Your task to perform on an android device: turn on sleep mode Image 0: 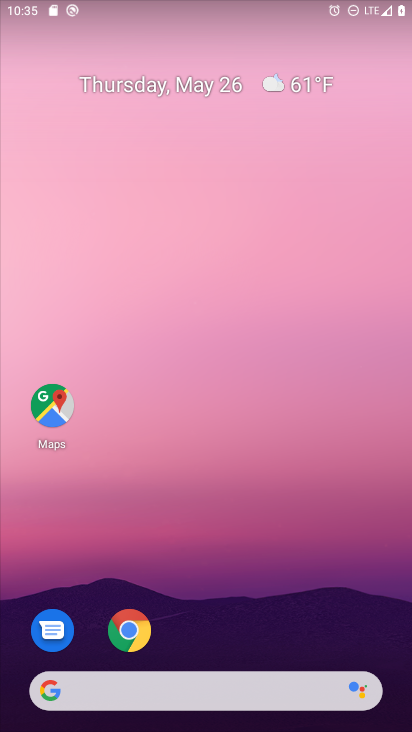
Step 0: drag from (182, 665) to (136, 6)
Your task to perform on an android device: turn on sleep mode Image 1: 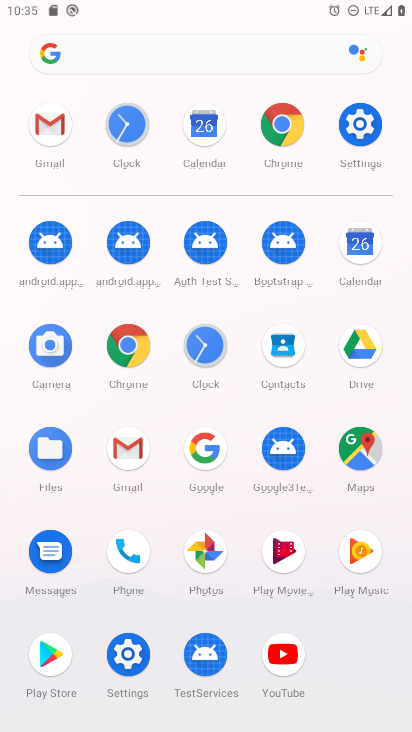
Step 1: click (354, 123)
Your task to perform on an android device: turn on sleep mode Image 2: 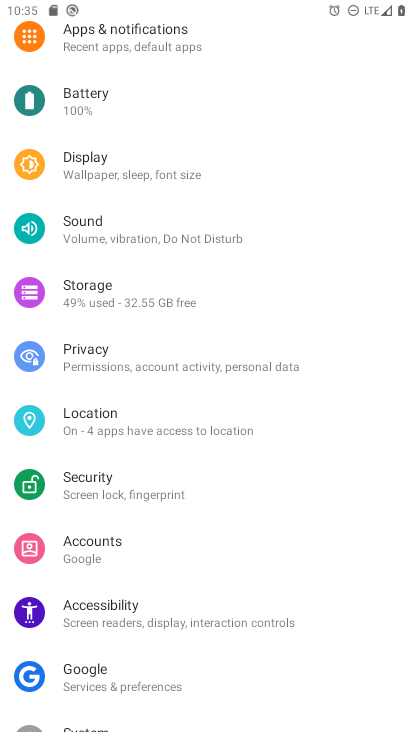
Step 2: click (88, 168)
Your task to perform on an android device: turn on sleep mode Image 3: 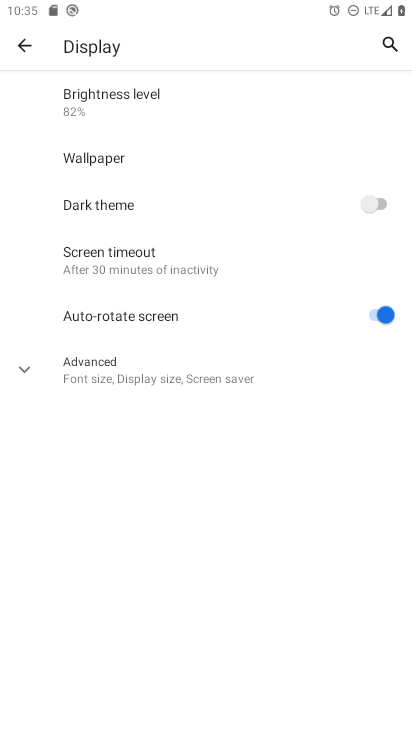
Step 3: task complete